Your task to perform on an android device: toggle show notifications on the lock screen Image 0: 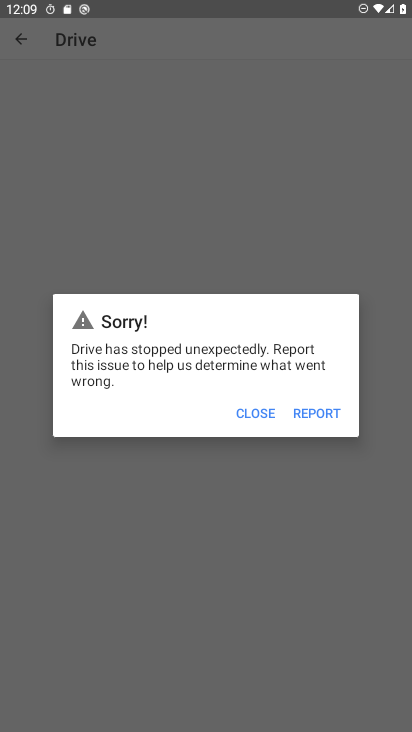
Step 0: press home button
Your task to perform on an android device: toggle show notifications on the lock screen Image 1: 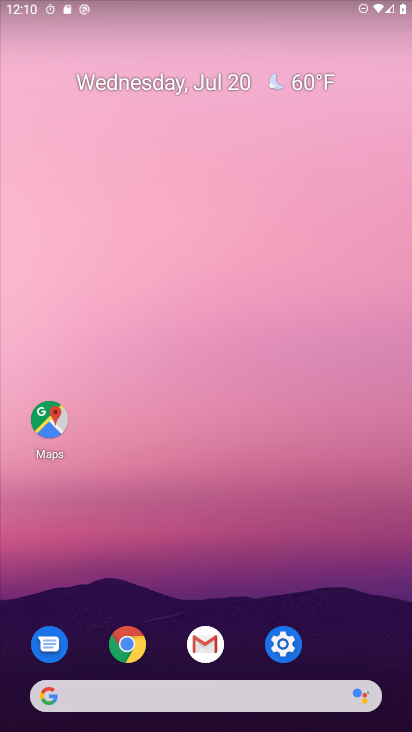
Step 1: click (296, 633)
Your task to perform on an android device: toggle show notifications on the lock screen Image 2: 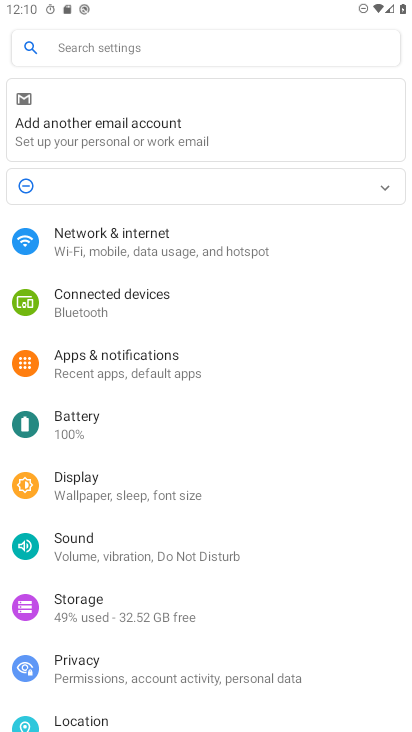
Step 2: click (137, 48)
Your task to perform on an android device: toggle show notifications on the lock screen Image 3: 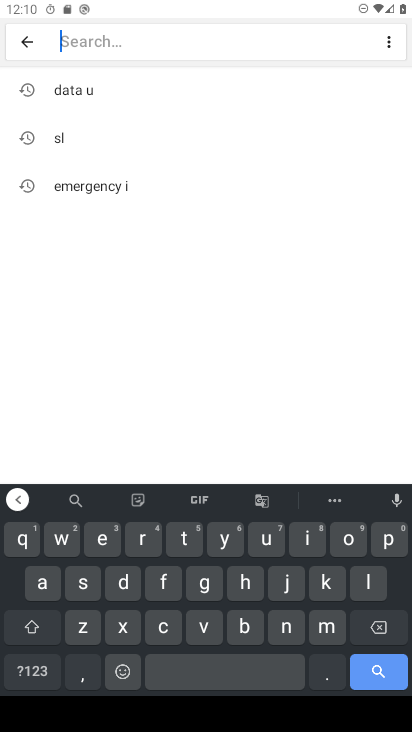
Step 3: click (280, 632)
Your task to perform on an android device: toggle show notifications on the lock screen Image 4: 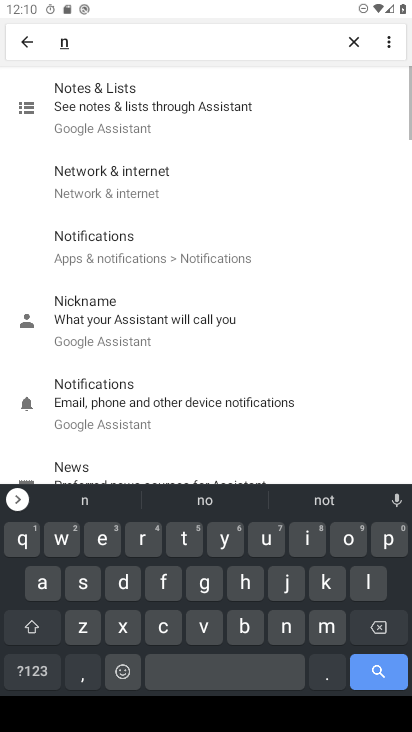
Step 4: click (346, 544)
Your task to perform on an android device: toggle show notifications on the lock screen Image 5: 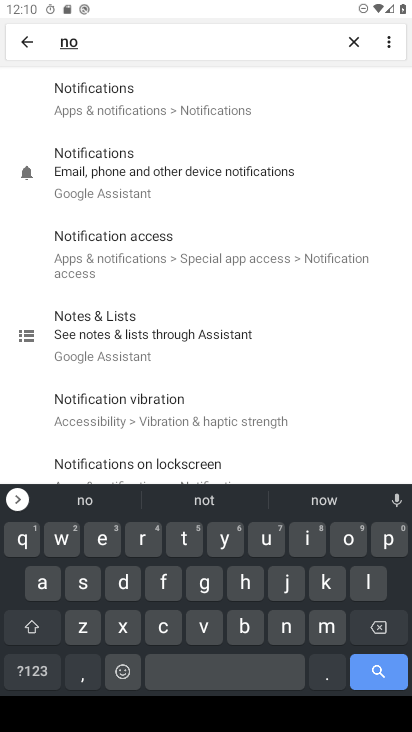
Step 5: click (114, 100)
Your task to perform on an android device: toggle show notifications on the lock screen Image 6: 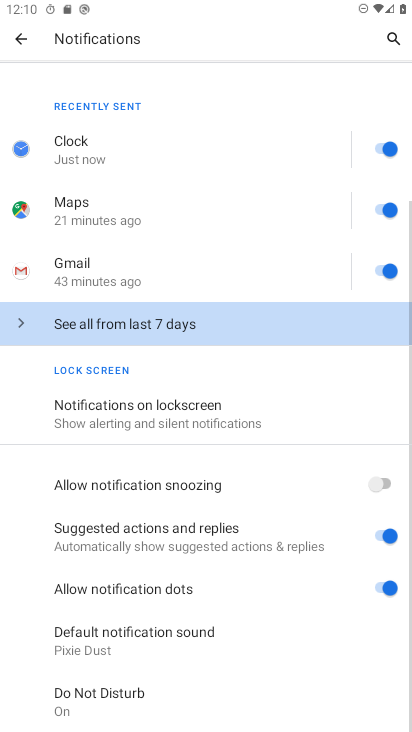
Step 6: click (119, 402)
Your task to perform on an android device: toggle show notifications on the lock screen Image 7: 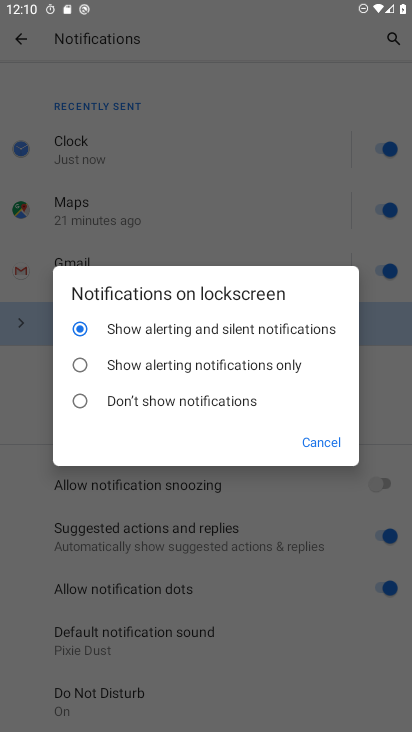
Step 7: task complete